Your task to perform on an android device: delete a single message in the gmail app Image 0: 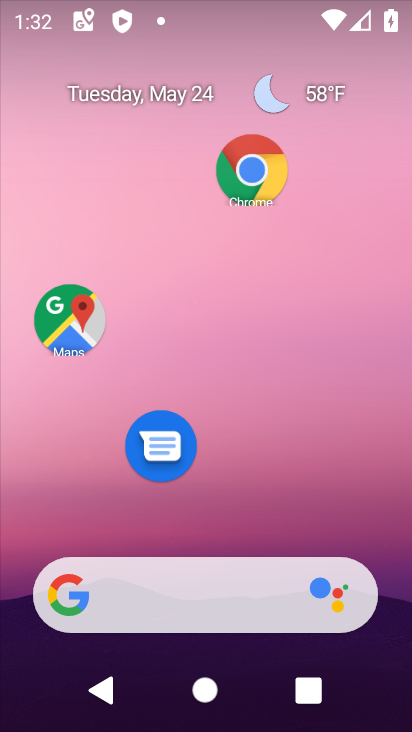
Step 0: drag from (253, 573) to (255, 191)
Your task to perform on an android device: delete a single message in the gmail app Image 1: 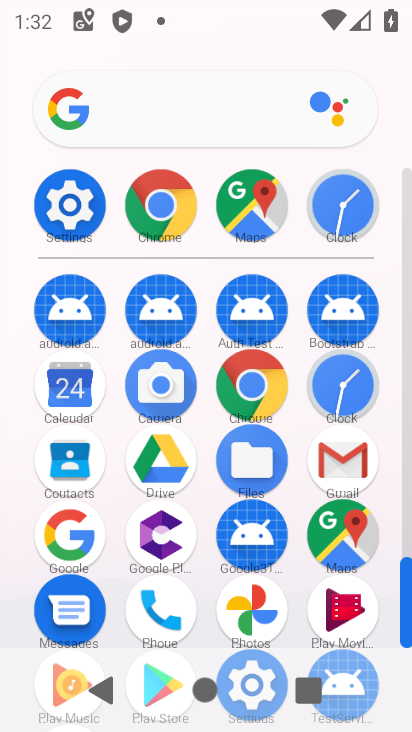
Step 1: click (339, 470)
Your task to perform on an android device: delete a single message in the gmail app Image 2: 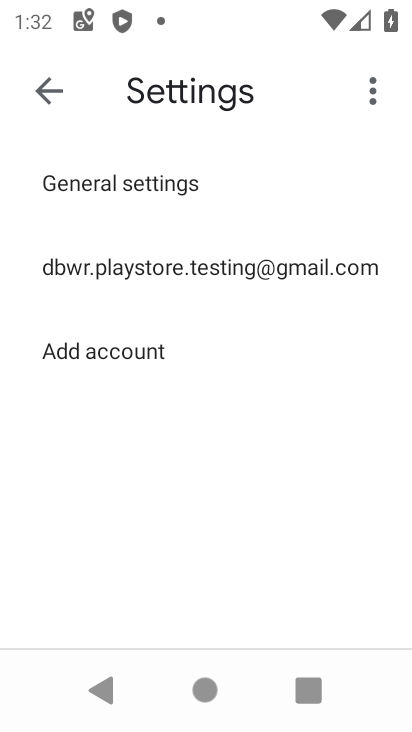
Step 2: click (47, 100)
Your task to perform on an android device: delete a single message in the gmail app Image 3: 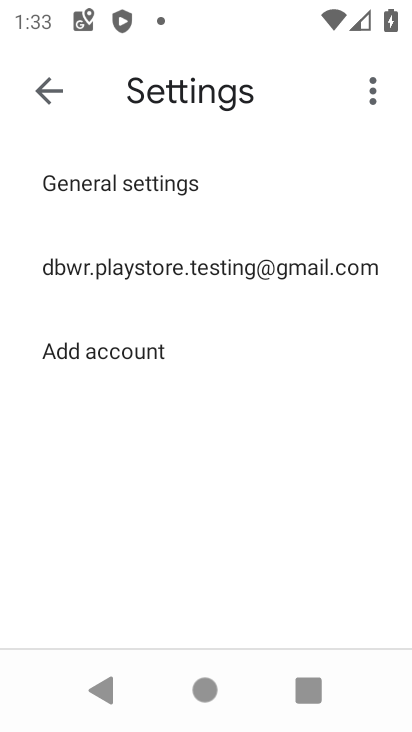
Step 3: click (53, 102)
Your task to perform on an android device: delete a single message in the gmail app Image 4: 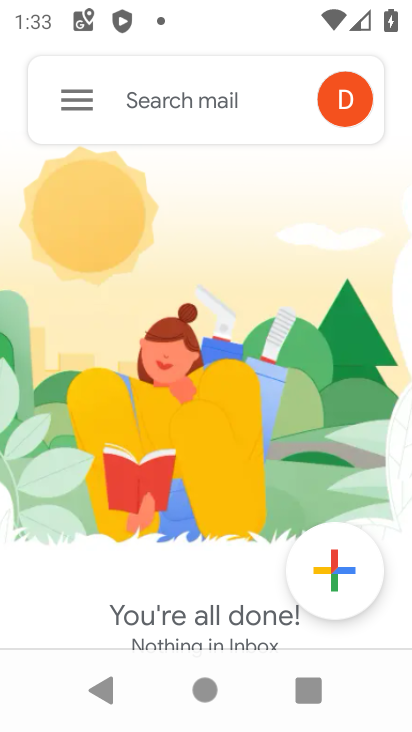
Step 4: click (78, 109)
Your task to perform on an android device: delete a single message in the gmail app Image 5: 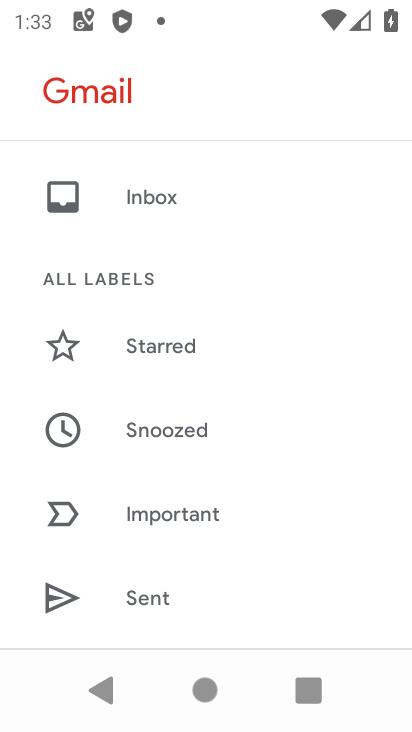
Step 5: drag from (120, 548) to (145, 121)
Your task to perform on an android device: delete a single message in the gmail app Image 6: 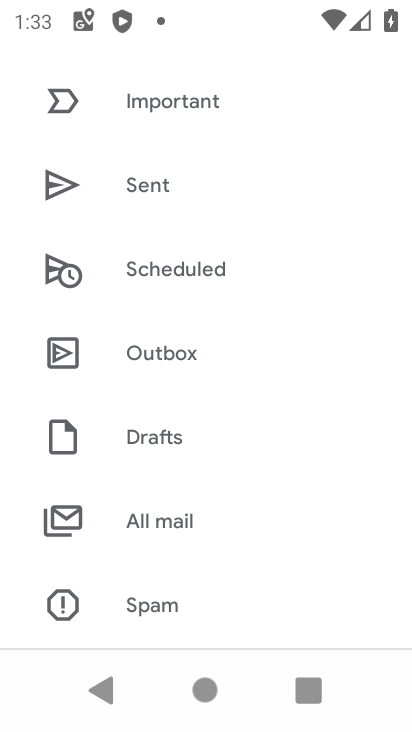
Step 6: click (181, 519)
Your task to perform on an android device: delete a single message in the gmail app Image 7: 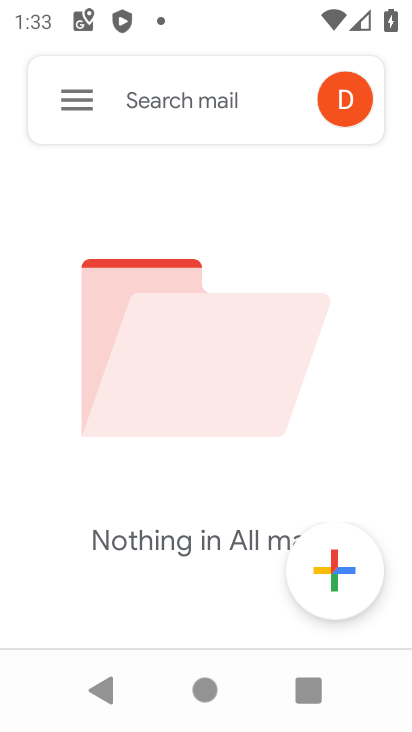
Step 7: task complete